Your task to perform on an android device: Is it going to rain this weekend? Image 0: 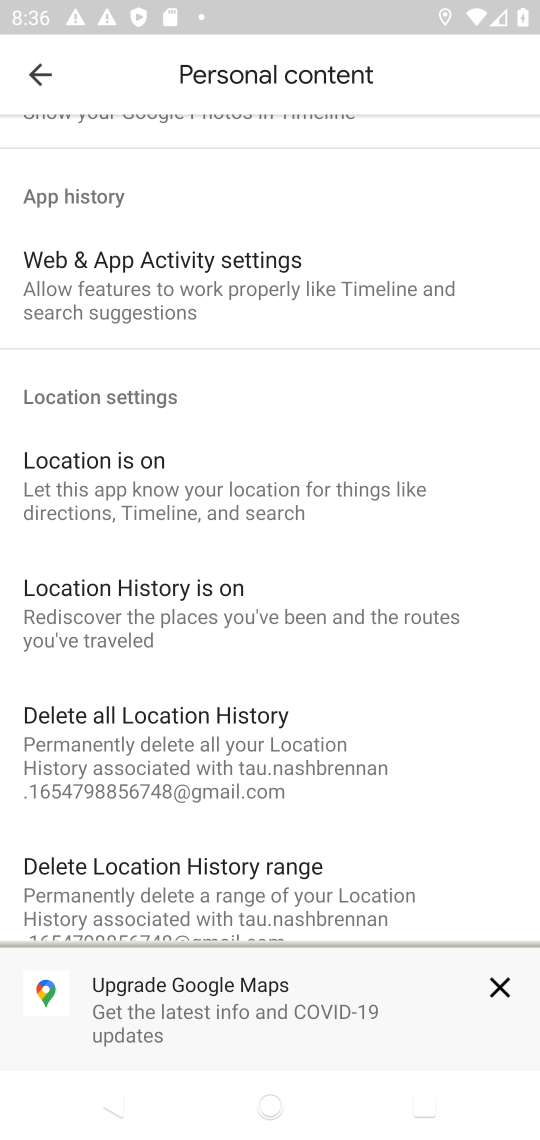
Step 0: press home button
Your task to perform on an android device: Is it going to rain this weekend? Image 1: 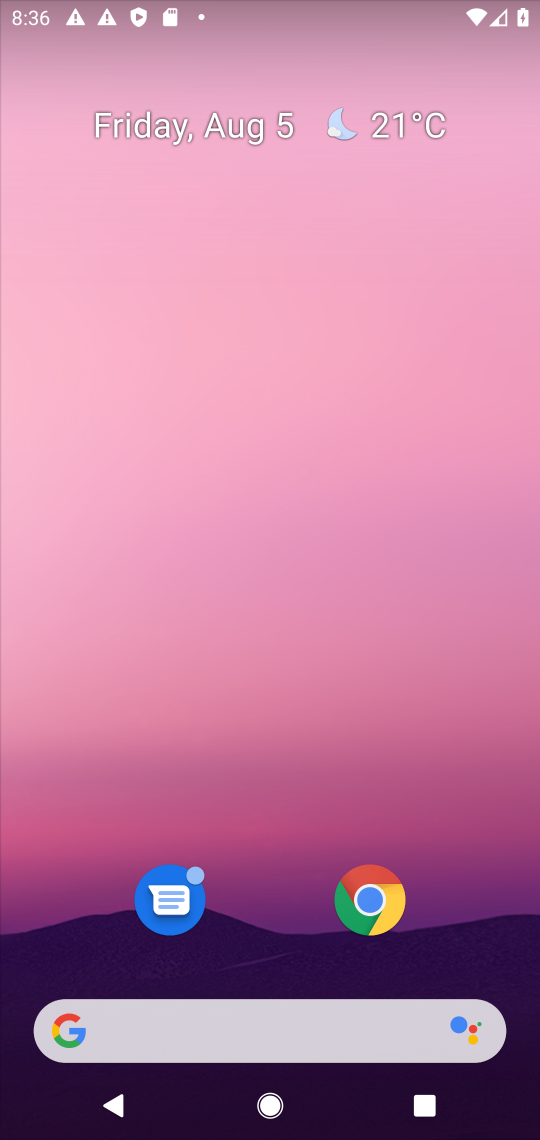
Step 1: drag from (271, 923) to (379, 47)
Your task to perform on an android device: Is it going to rain this weekend? Image 2: 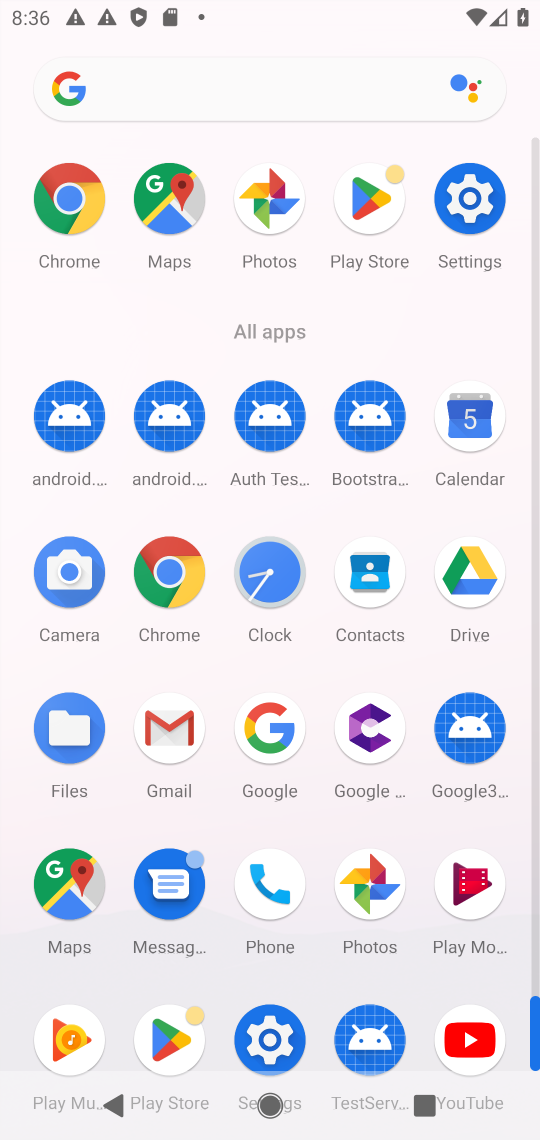
Step 2: click (167, 567)
Your task to perform on an android device: Is it going to rain this weekend? Image 3: 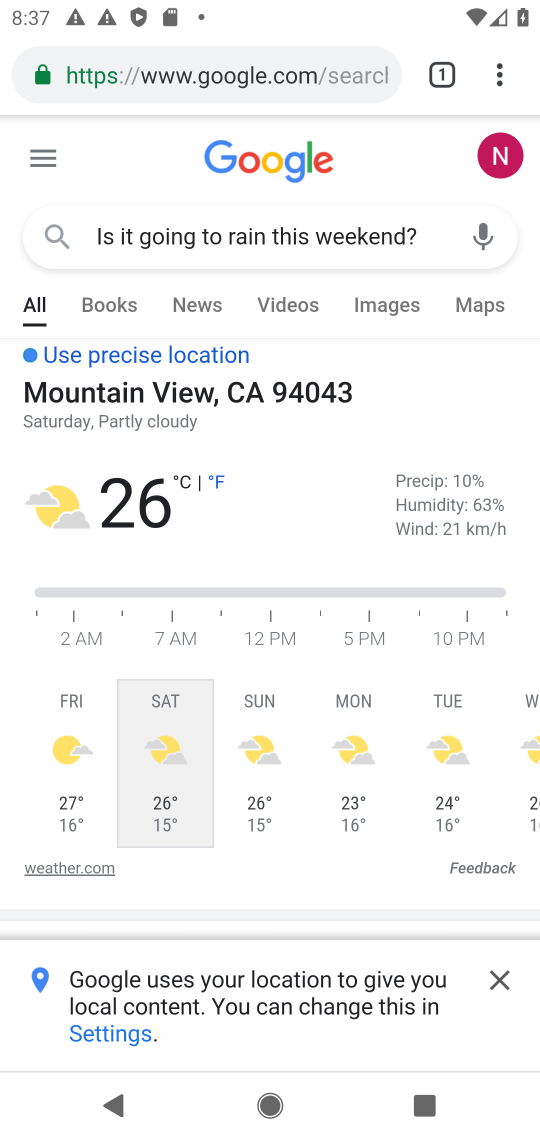
Step 3: click (168, 63)
Your task to perform on an android device: Is it going to rain this weekend? Image 4: 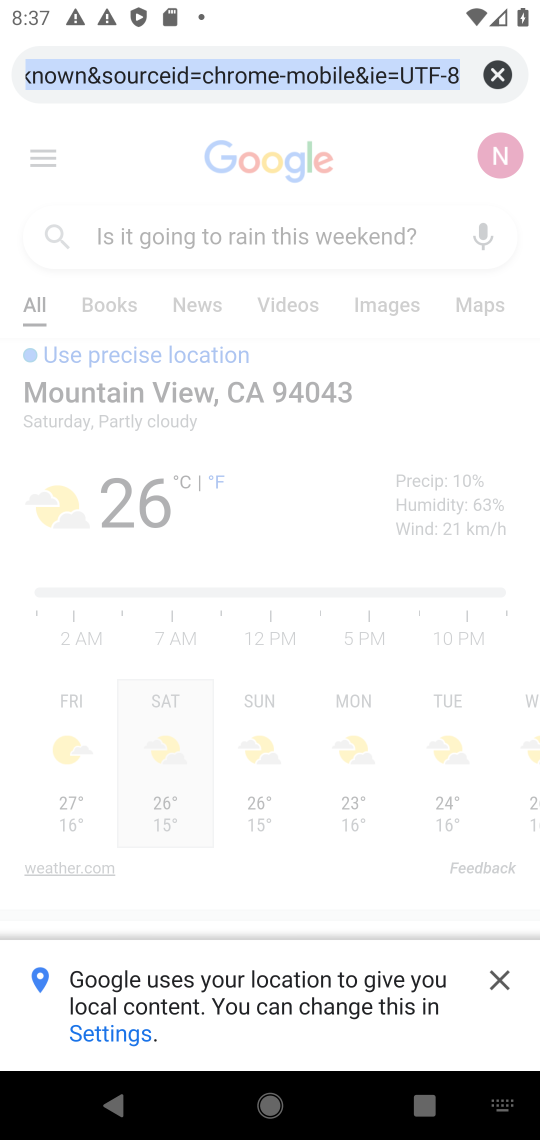
Step 4: click (500, 51)
Your task to perform on an android device: Is it going to rain this weekend? Image 5: 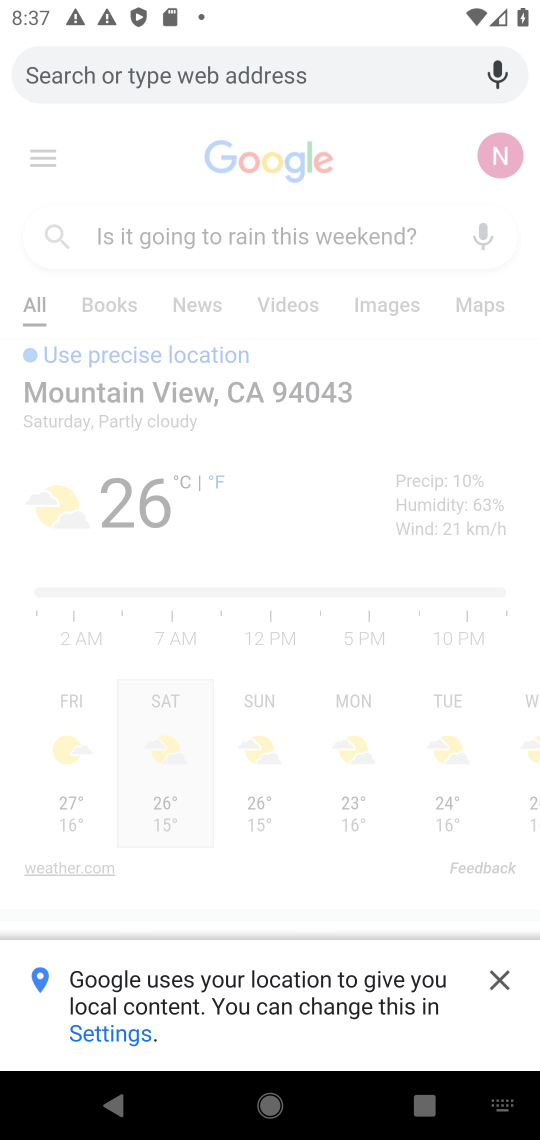
Step 5: type "Is it going to rain this weekend?"
Your task to perform on an android device: Is it going to rain this weekend? Image 6: 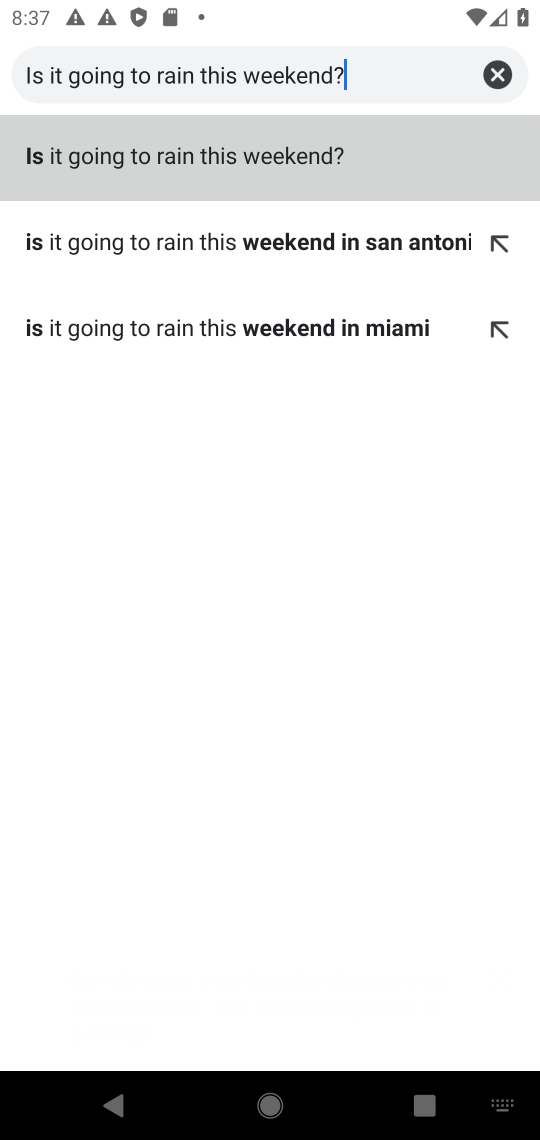
Step 6: click (278, 152)
Your task to perform on an android device: Is it going to rain this weekend? Image 7: 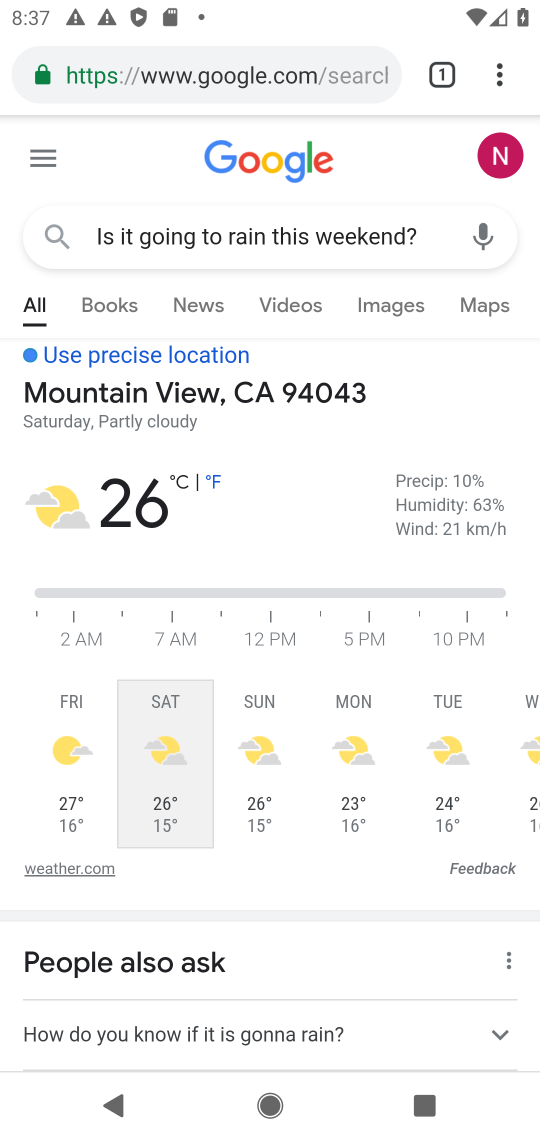
Step 7: task complete